Your task to perform on an android device: open a bookmark in the chrome app Image 0: 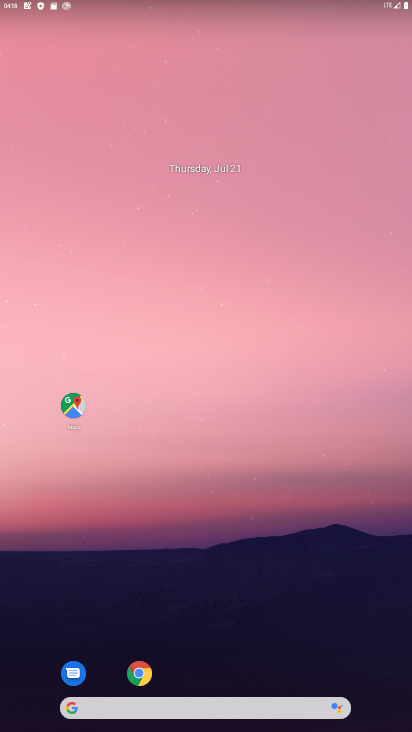
Step 0: drag from (279, 542) to (254, 161)
Your task to perform on an android device: open a bookmark in the chrome app Image 1: 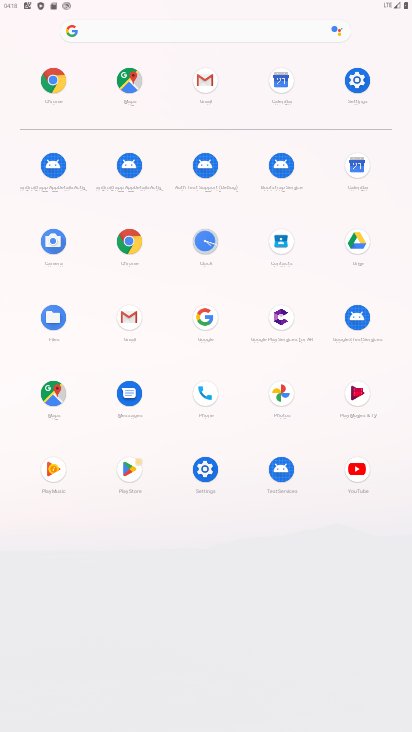
Step 1: click (129, 237)
Your task to perform on an android device: open a bookmark in the chrome app Image 2: 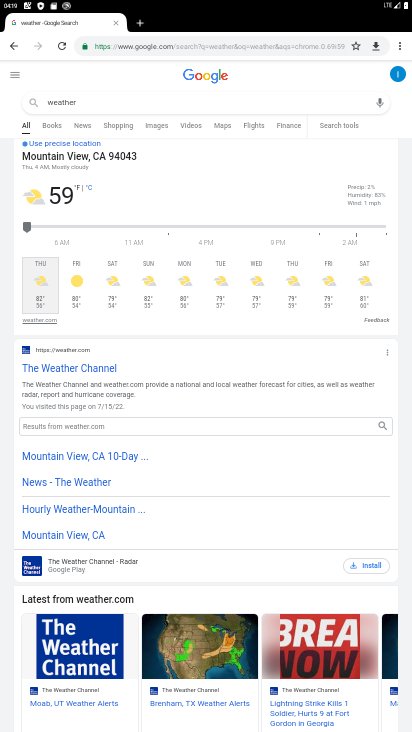
Step 2: drag from (395, 41) to (316, 88)
Your task to perform on an android device: open a bookmark in the chrome app Image 3: 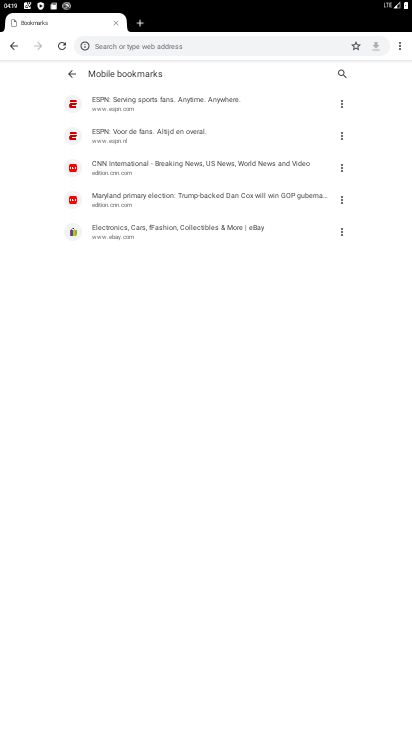
Step 3: click (183, 114)
Your task to perform on an android device: open a bookmark in the chrome app Image 4: 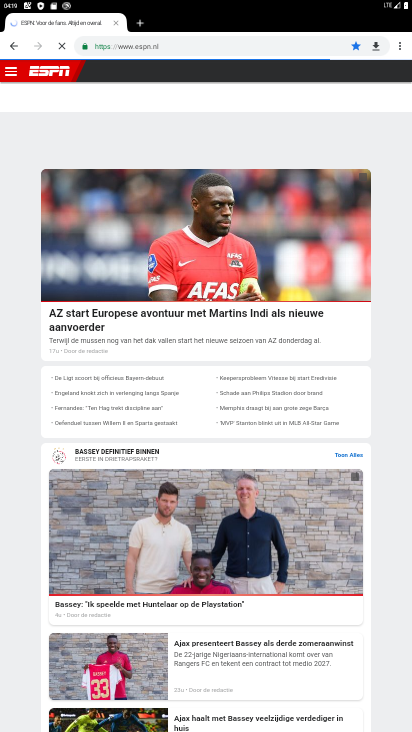
Step 4: task complete